Your task to perform on an android device: turn off notifications settings in the gmail app Image 0: 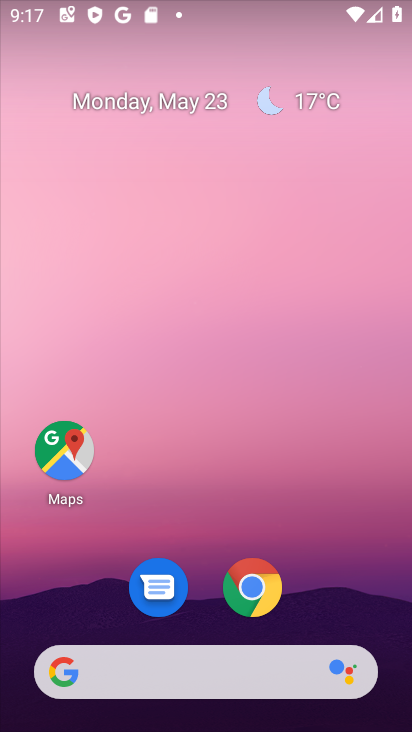
Step 0: drag from (180, 621) to (248, 97)
Your task to perform on an android device: turn off notifications settings in the gmail app Image 1: 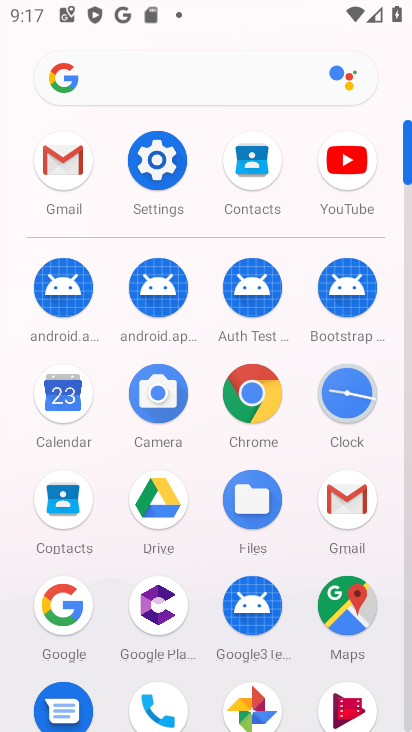
Step 1: click (58, 155)
Your task to perform on an android device: turn off notifications settings in the gmail app Image 2: 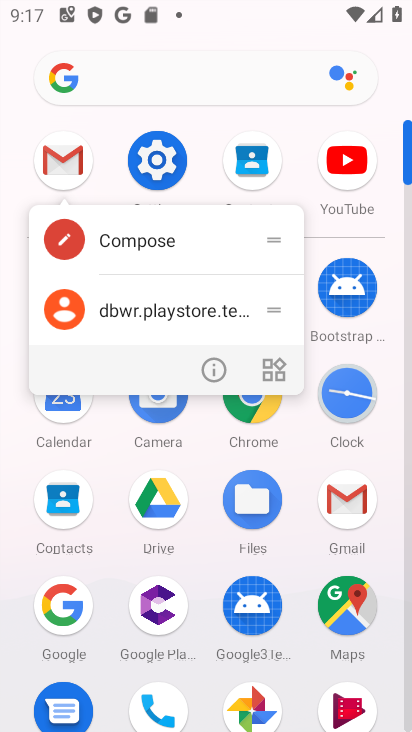
Step 2: click (222, 364)
Your task to perform on an android device: turn off notifications settings in the gmail app Image 3: 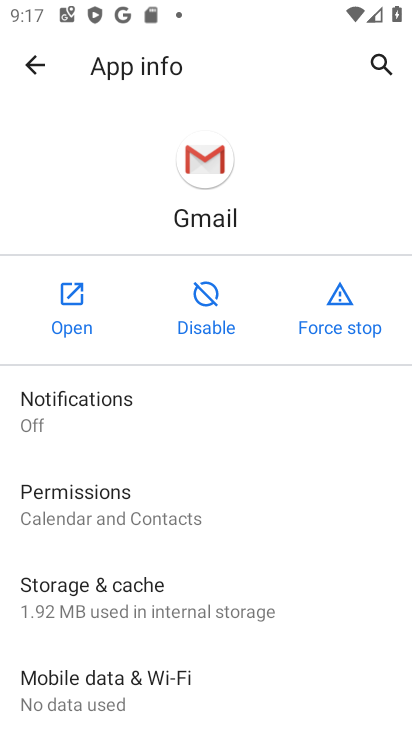
Step 3: click (131, 389)
Your task to perform on an android device: turn off notifications settings in the gmail app Image 4: 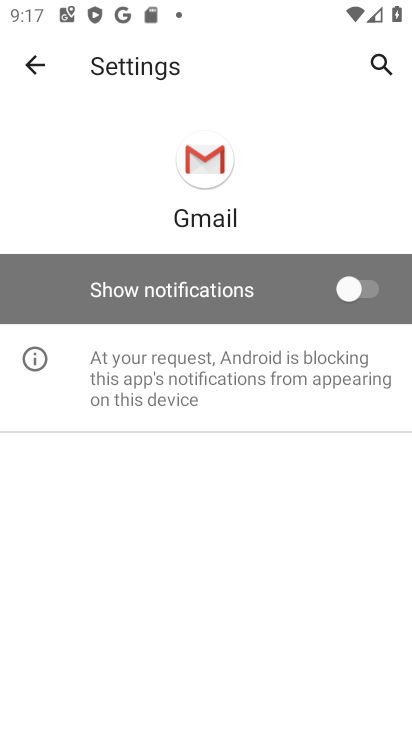
Step 4: task complete